Your task to perform on an android device: What is the recent news? Image 0: 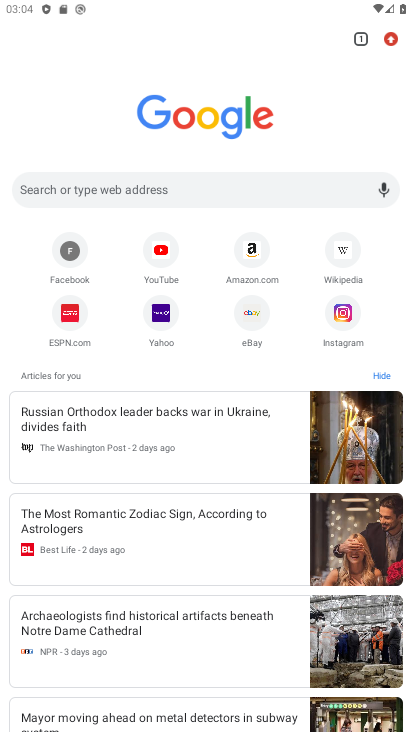
Step 0: drag from (215, 643) to (216, 370)
Your task to perform on an android device: What is the recent news? Image 1: 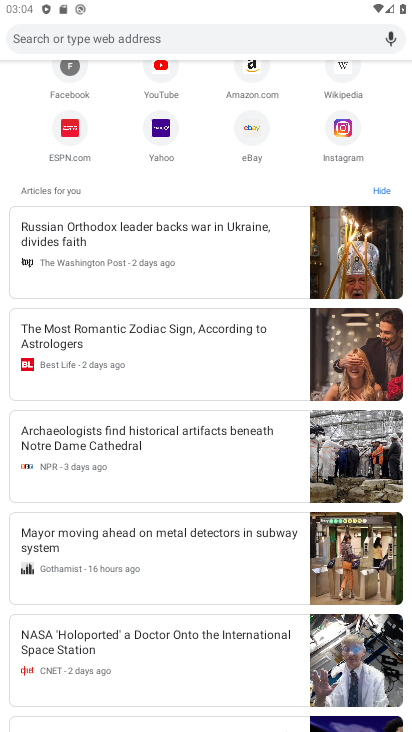
Step 1: task complete